Your task to perform on an android device: Open the calendar app, open the side menu, and click the "Day" option Image 0: 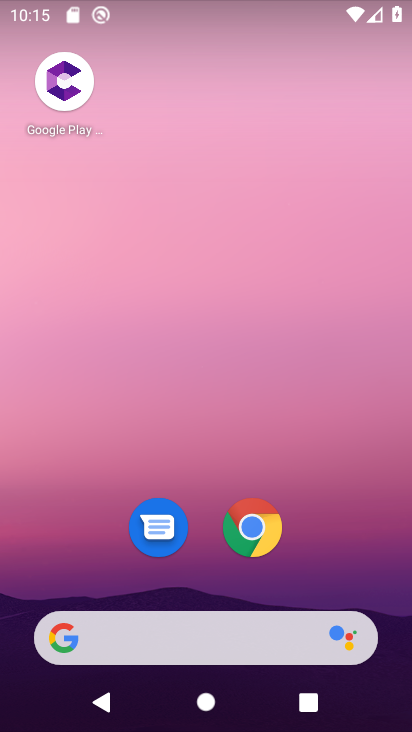
Step 0: drag from (384, 565) to (284, 143)
Your task to perform on an android device: Open the calendar app, open the side menu, and click the "Day" option Image 1: 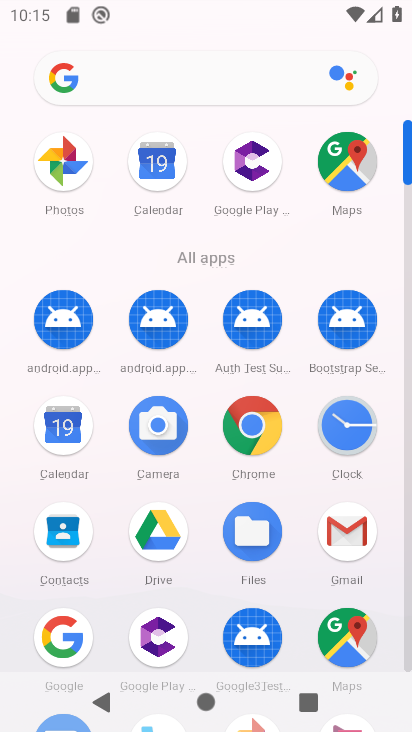
Step 1: click (52, 419)
Your task to perform on an android device: Open the calendar app, open the side menu, and click the "Day" option Image 2: 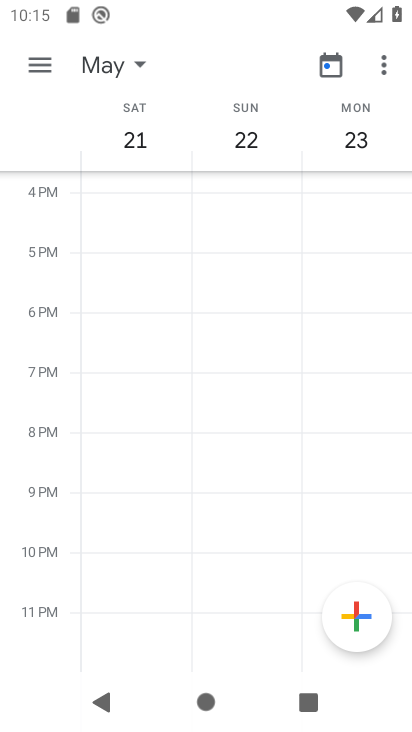
Step 2: click (47, 73)
Your task to perform on an android device: Open the calendar app, open the side menu, and click the "Day" option Image 3: 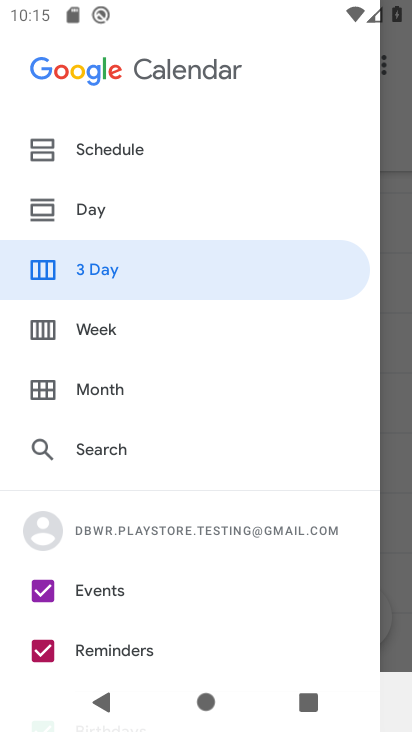
Step 3: click (109, 210)
Your task to perform on an android device: Open the calendar app, open the side menu, and click the "Day" option Image 4: 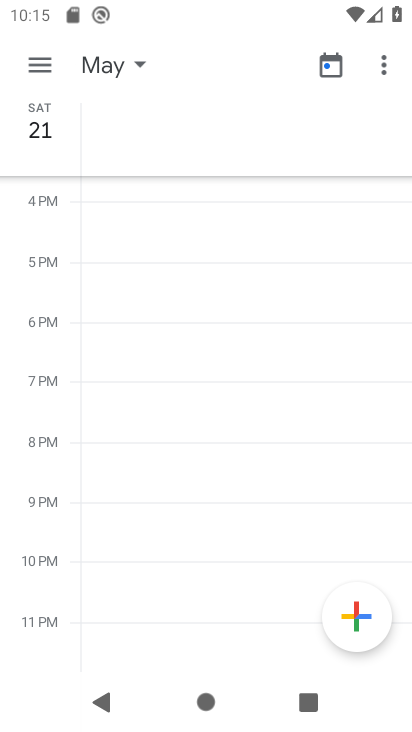
Step 4: task complete